Your task to perform on an android device: see creations saved in the google photos Image 0: 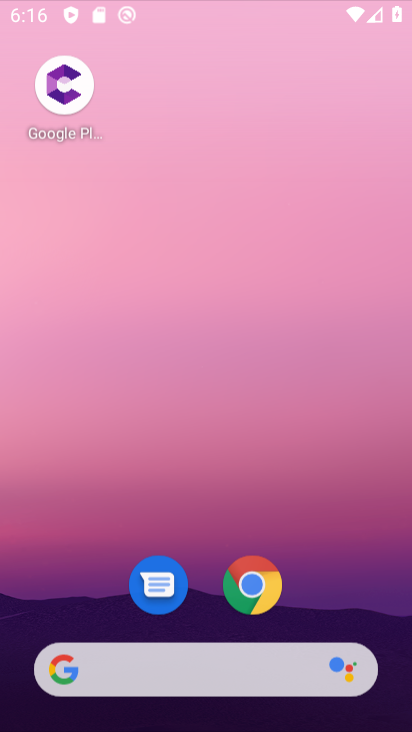
Step 0: click (272, 46)
Your task to perform on an android device: see creations saved in the google photos Image 1: 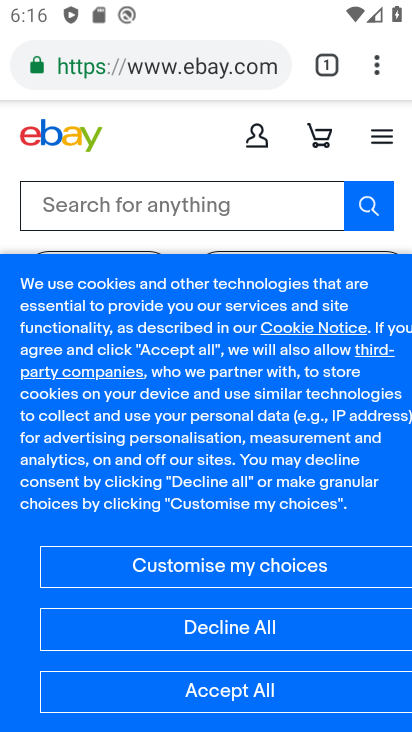
Step 1: press back button
Your task to perform on an android device: see creations saved in the google photos Image 2: 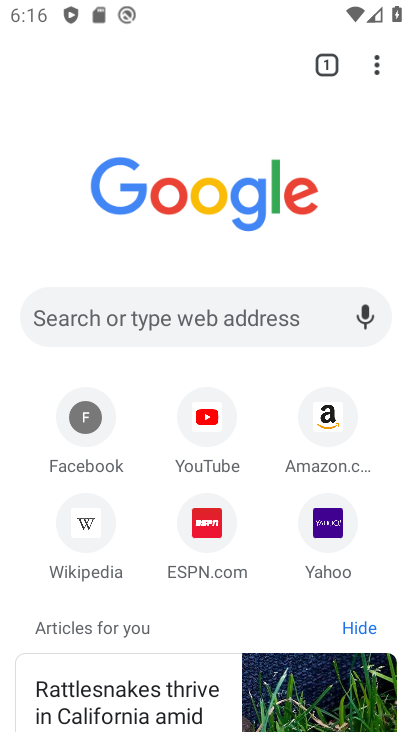
Step 2: press home button
Your task to perform on an android device: see creations saved in the google photos Image 3: 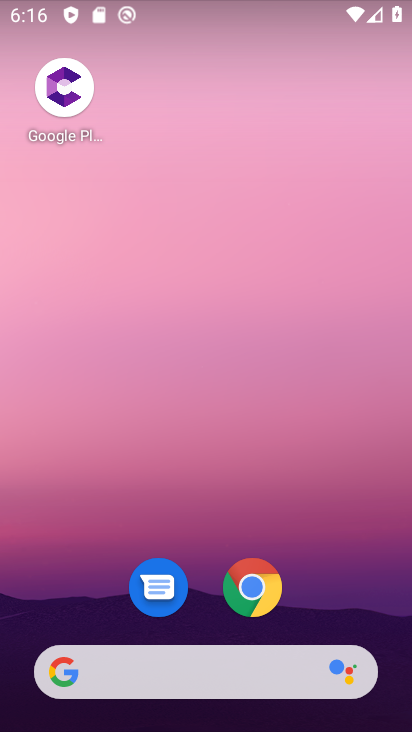
Step 3: drag from (318, 521) to (190, 10)
Your task to perform on an android device: see creations saved in the google photos Image 4: 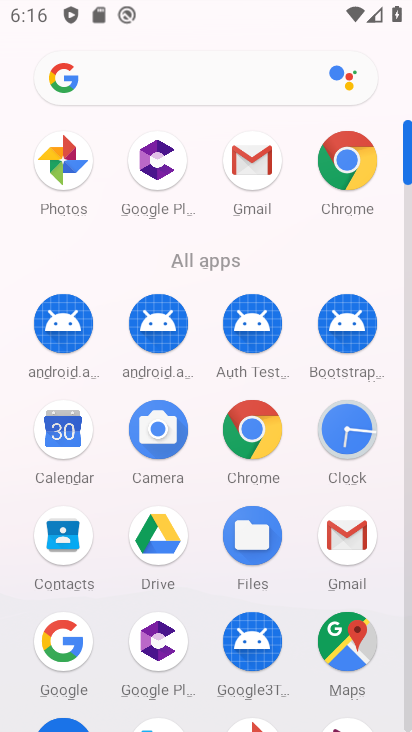
Step 4: drag from (18, 595) to (6, 271)
Your task to perform on an android device: see creations saved in the google photos Image 5: 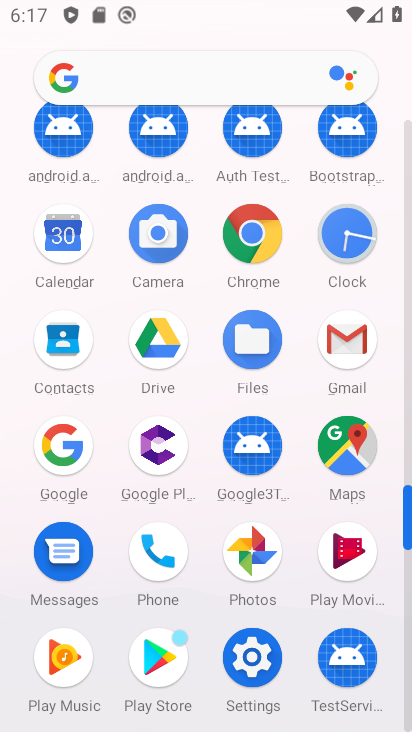
Step 5: click (249, 548)
Your task to perform on an android device: see creations saved in the google photos Image 6: 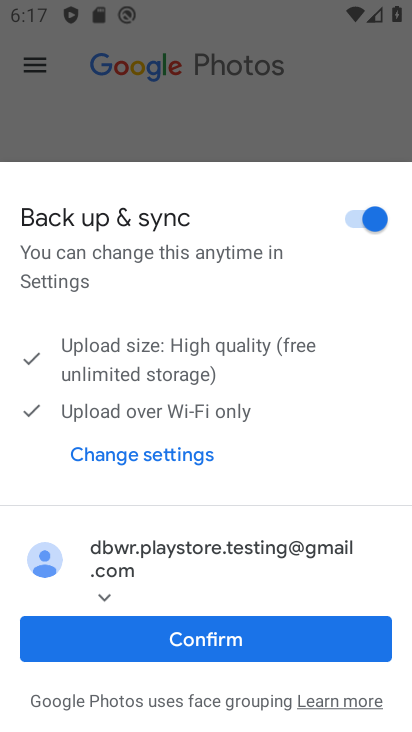
Step 6: click (189, 629)
Your task to perform on an android device: see creations saved in the google photos Image 7: 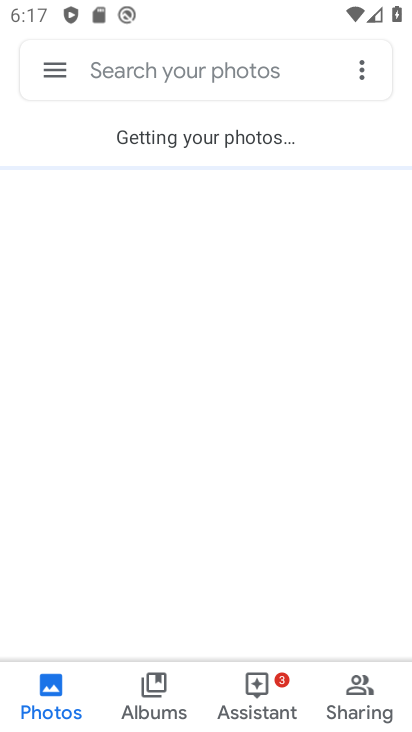
Step 7: task complete